Your task to perform on an android device: Open Reddit.com Image 0: 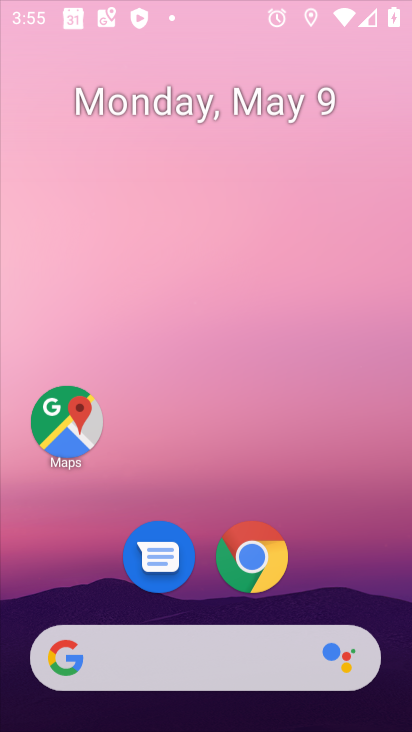
Step 0: click (189, 103)
Your task to perform on an android device: Open Reddit.com Image 1: 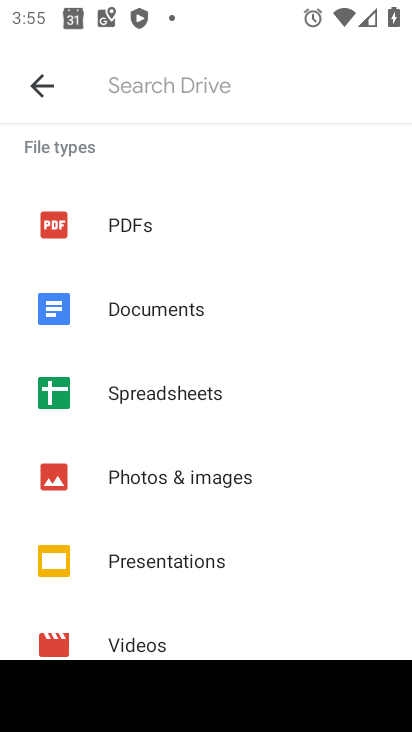
Step 1: press home button
Your task to perform on an android device: Open Reddit.com Image 2: 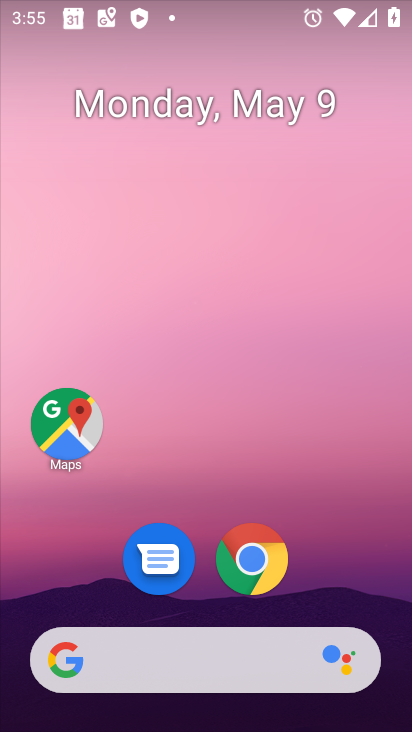
Step 2: click (253, 563)
Your task to perform on an android device: Open Reddit.com Image 3: 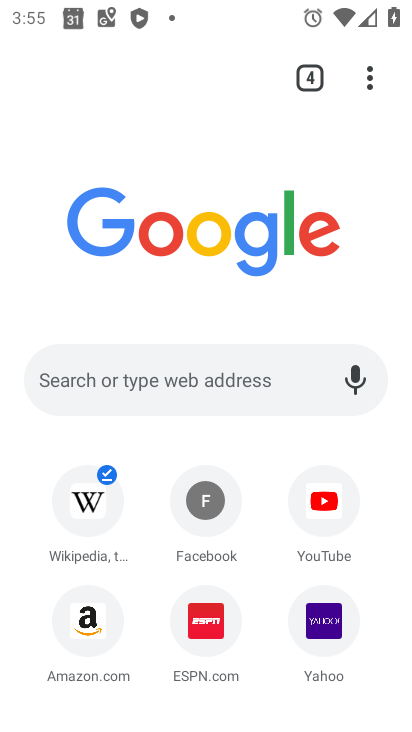
Step 3: click (235, 380)
Your task to perform on an android device: Open Reddit.com Image 4: 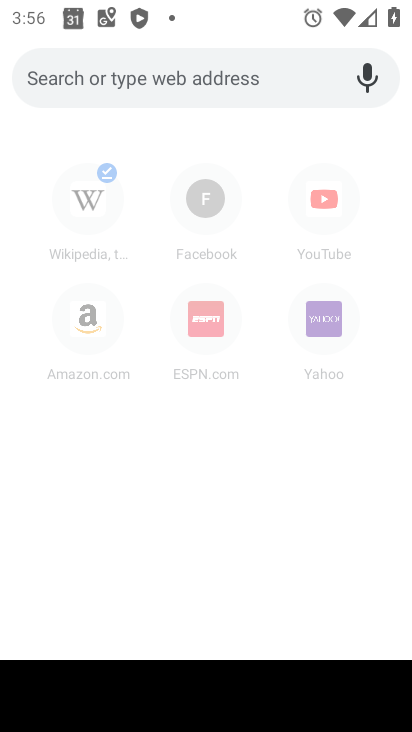
Step 4: type "Reddit.com"
Your task to perform on an android device: Open Reddit.com Image 5: 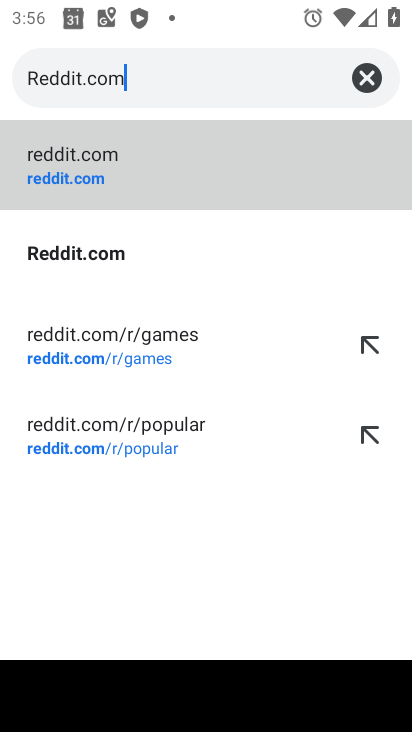
Step 5: click (79, 160)
Your task to perform on an android device: Open Reddit.com Image 6: 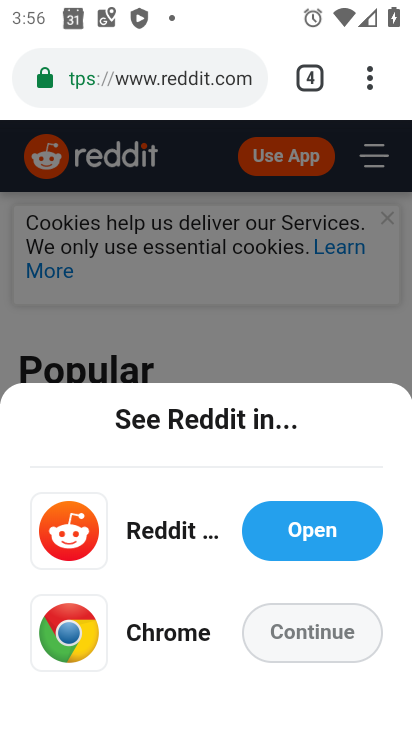
Step 6: task complete